Your task to perform on an android device: What's the weather? Image 0: 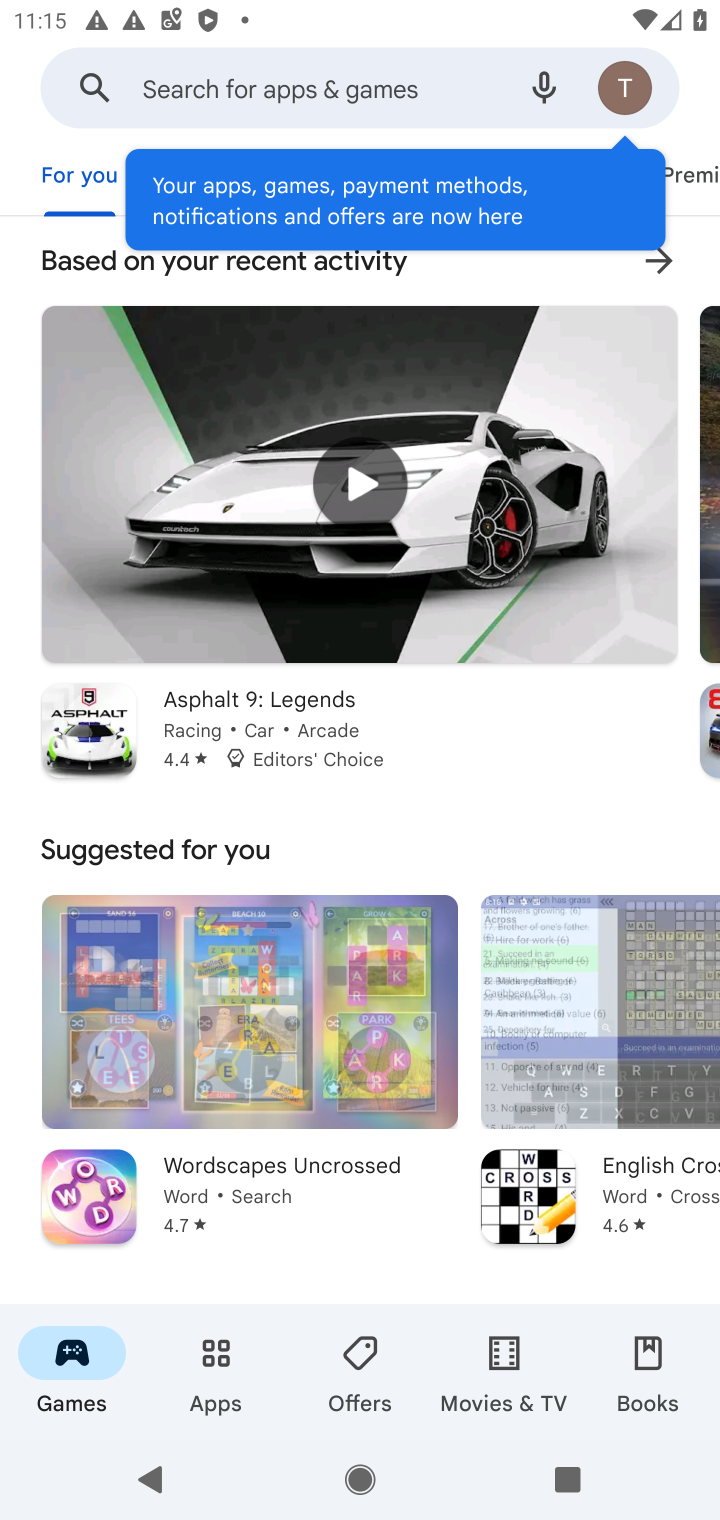
Step 0: press home button
Your task to perform on an android device: What's the weather? Image 1: 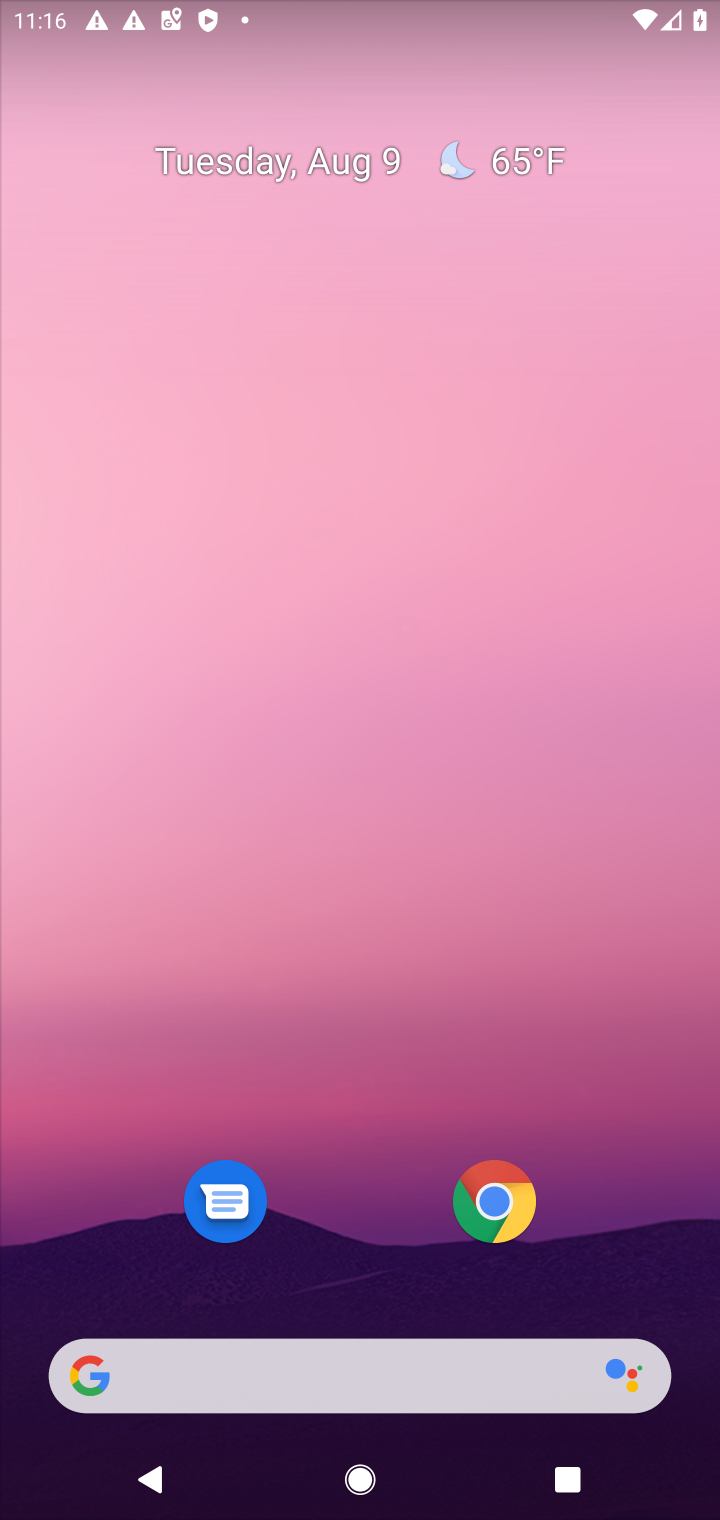
Step 1: click (81, 1374)
Your task to perform on an android device: What's the weather? Image 2: 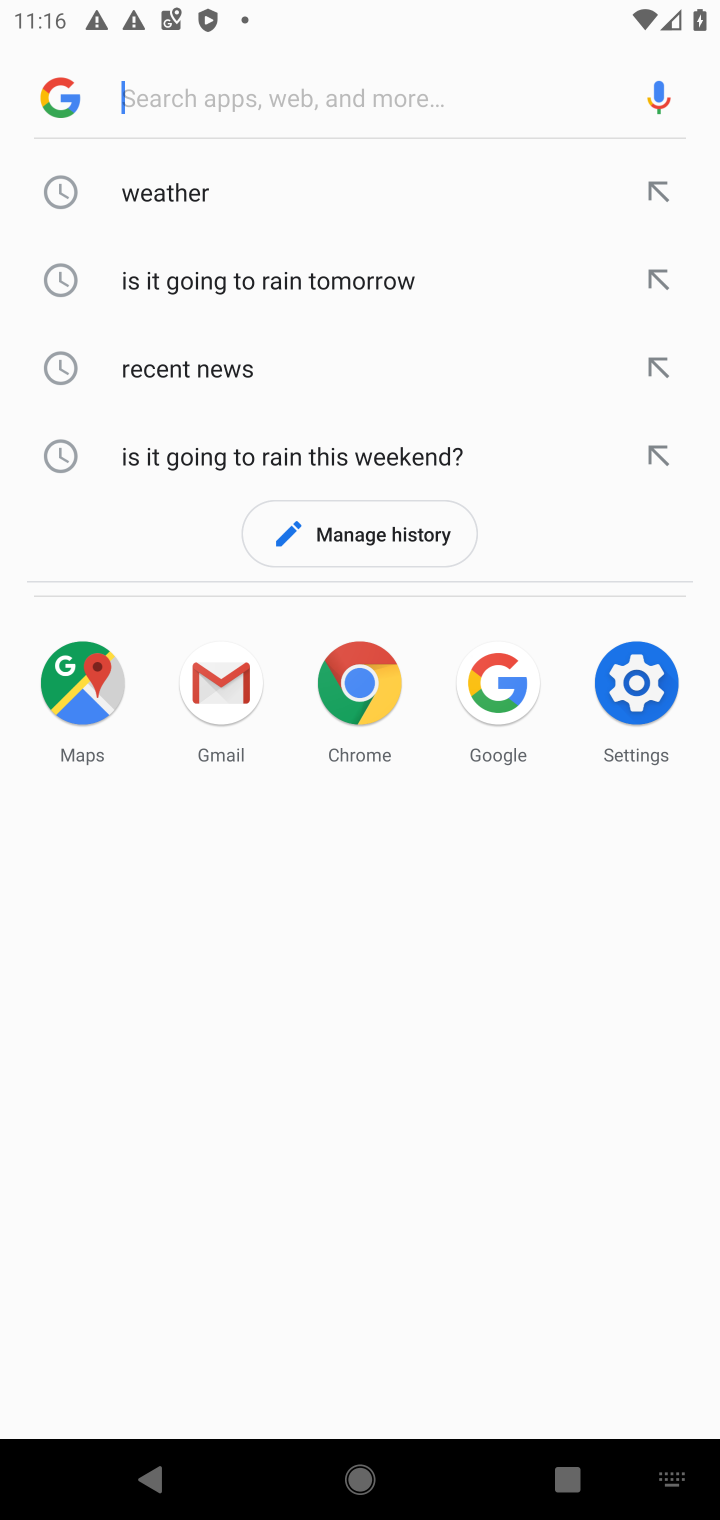
Step 2: click (167, 191)
Your task to perform on an android device: What's the weather? Image 3: 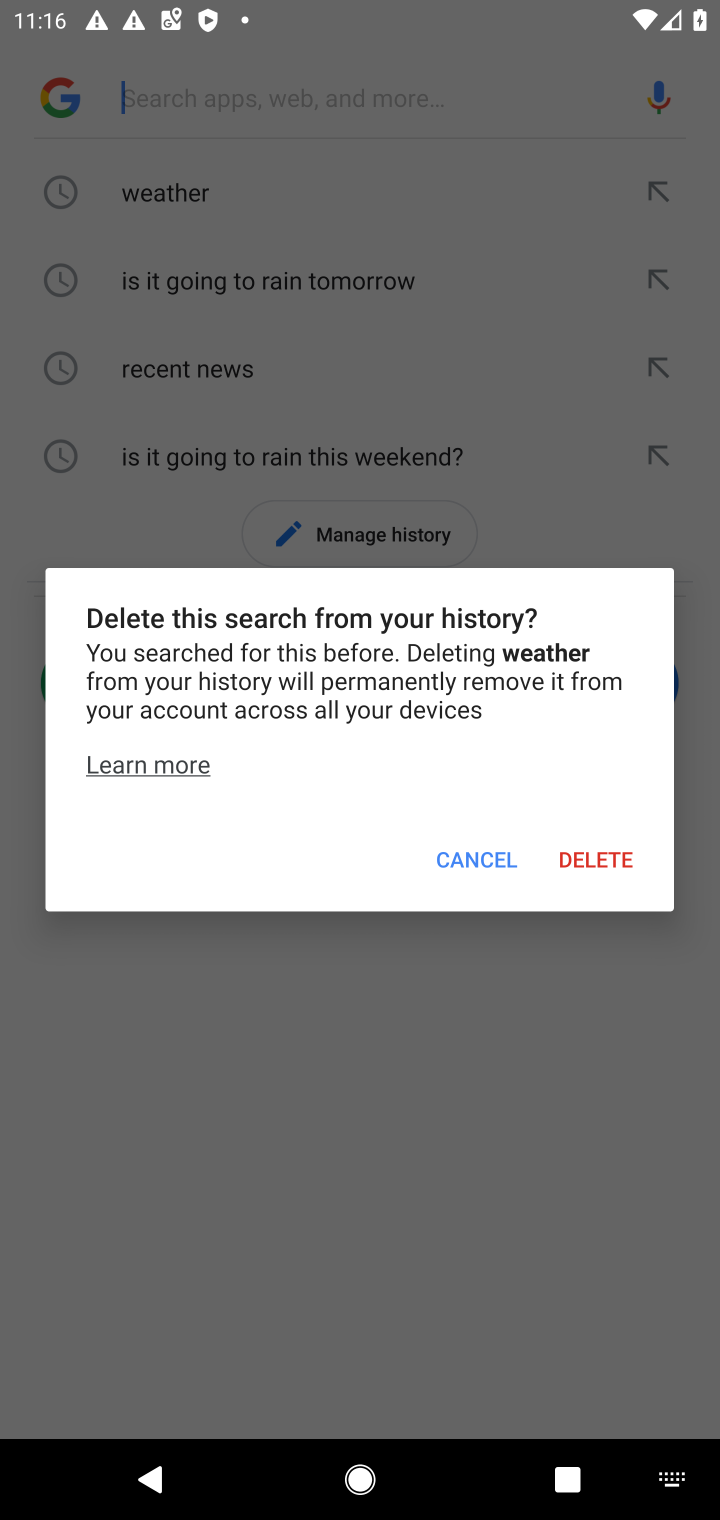
Step 3: click (485, 847)
Your task to perform on an android device: What's the weather? Image 4: 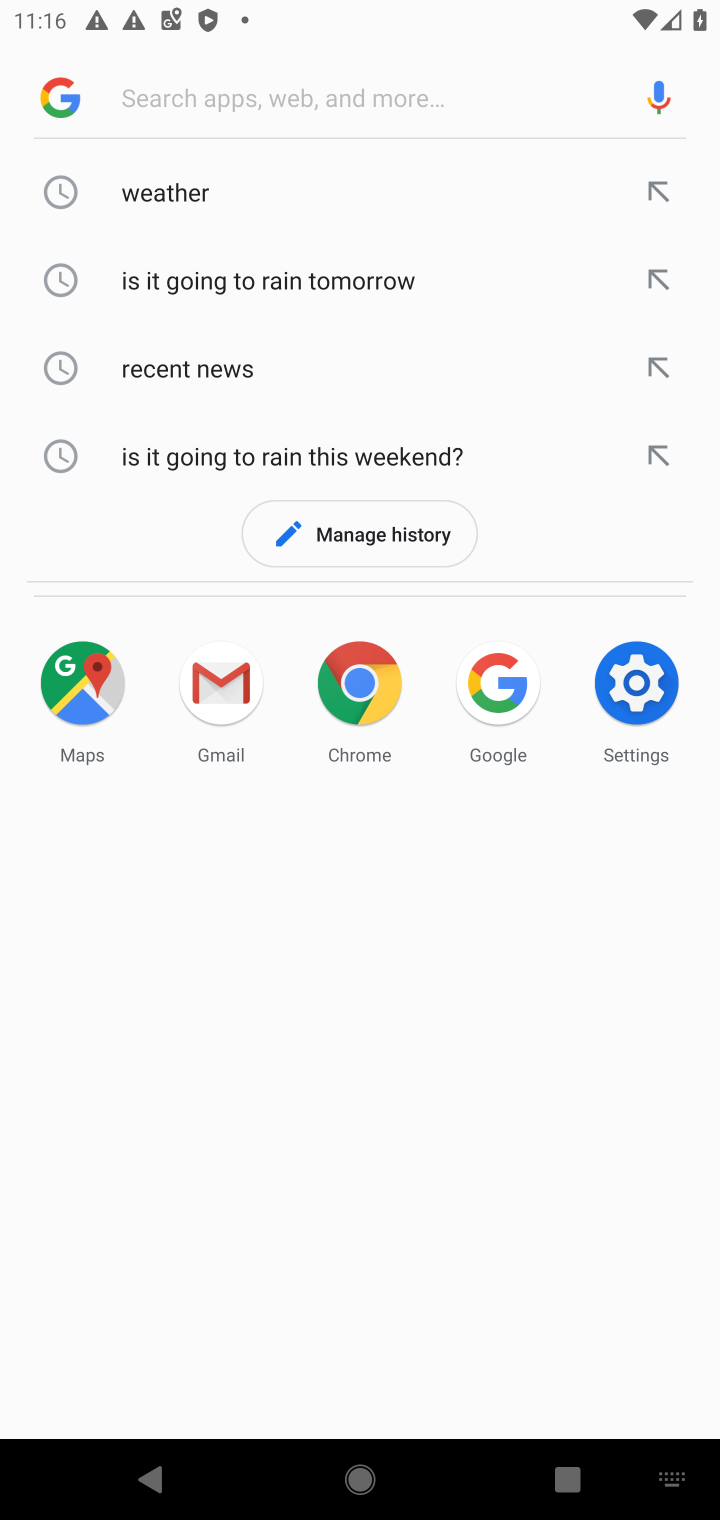
Step 4: type "weather"
Your task to perform on an android device: What's the weather? Image 5: 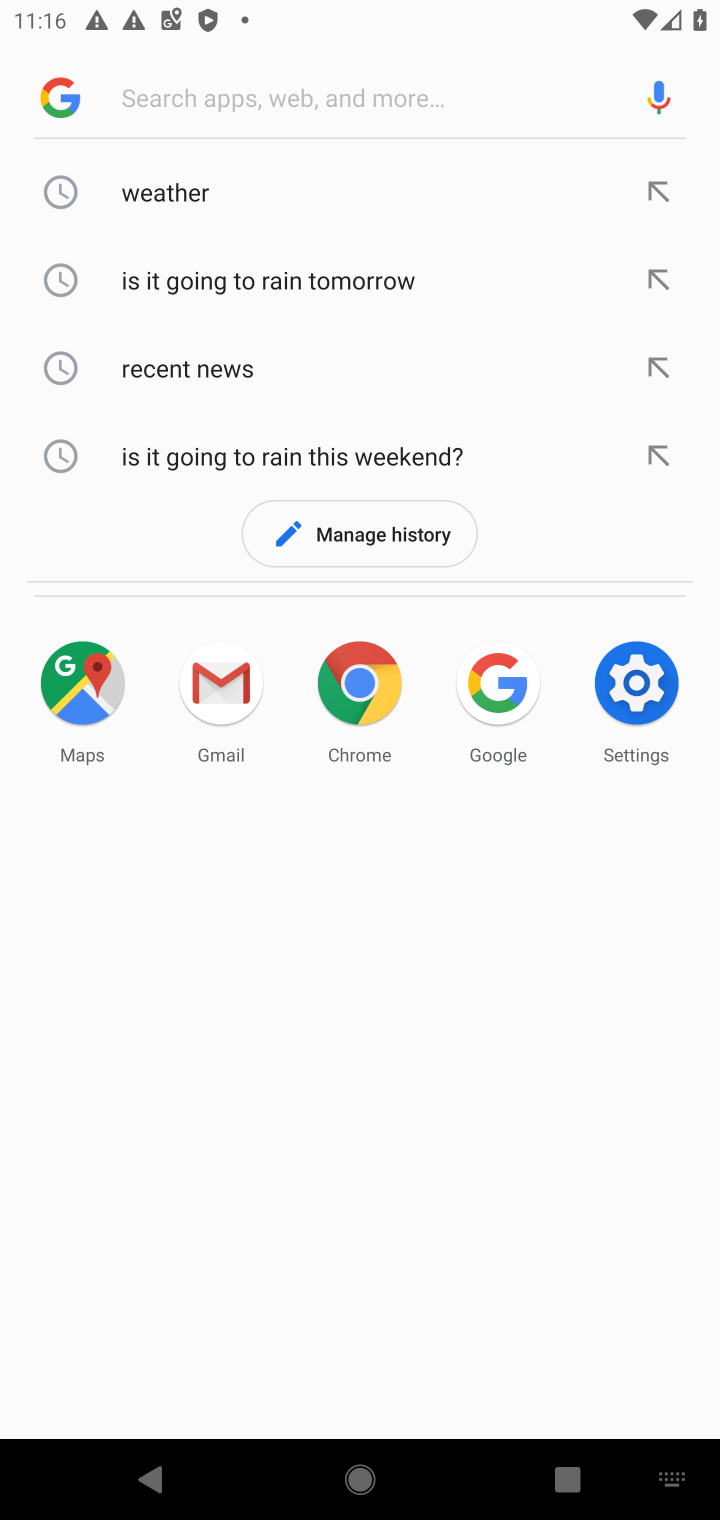
Step 5: click (199, 87)
Your task to perform on an android device: What's the weather? Image 6: 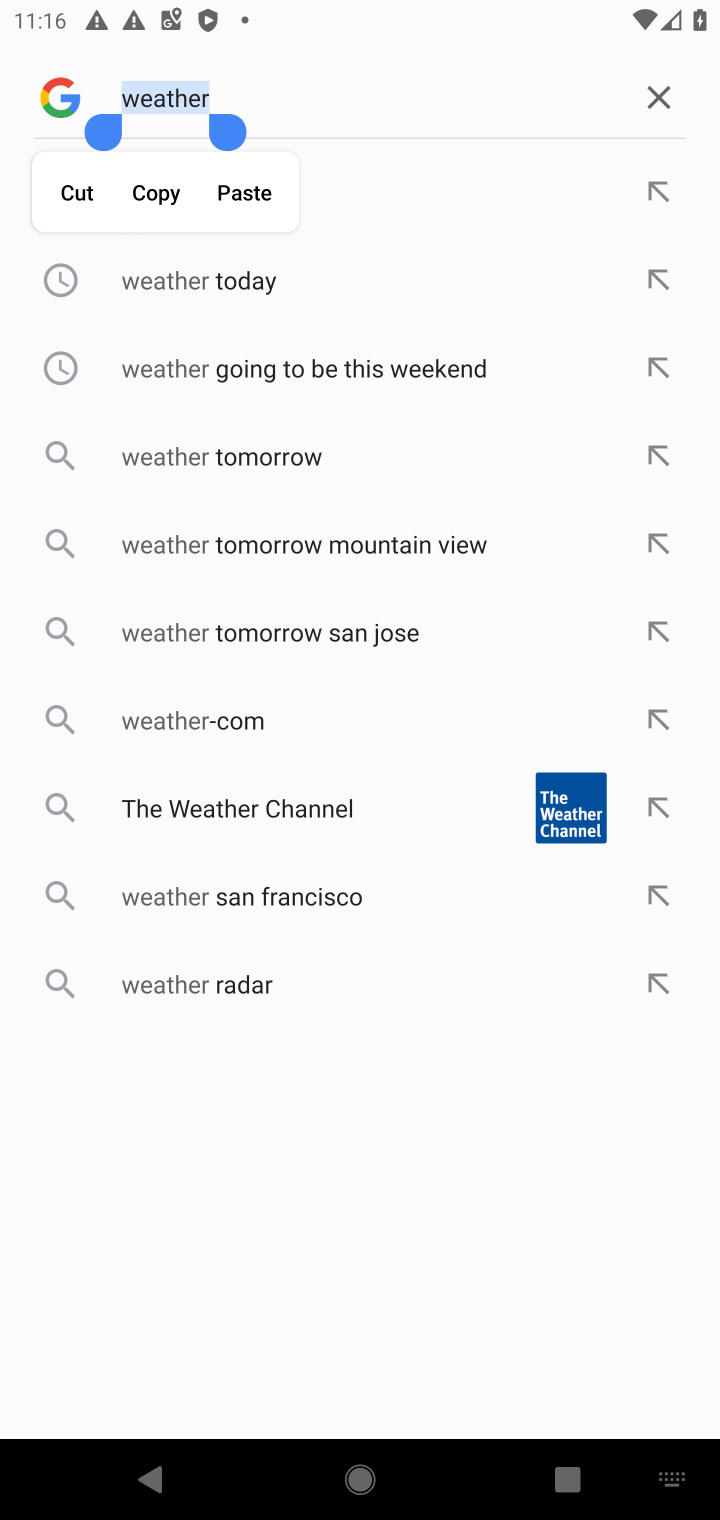
Step 6: press enter
Your task to perform on an android device: What's the weather? Image 7: 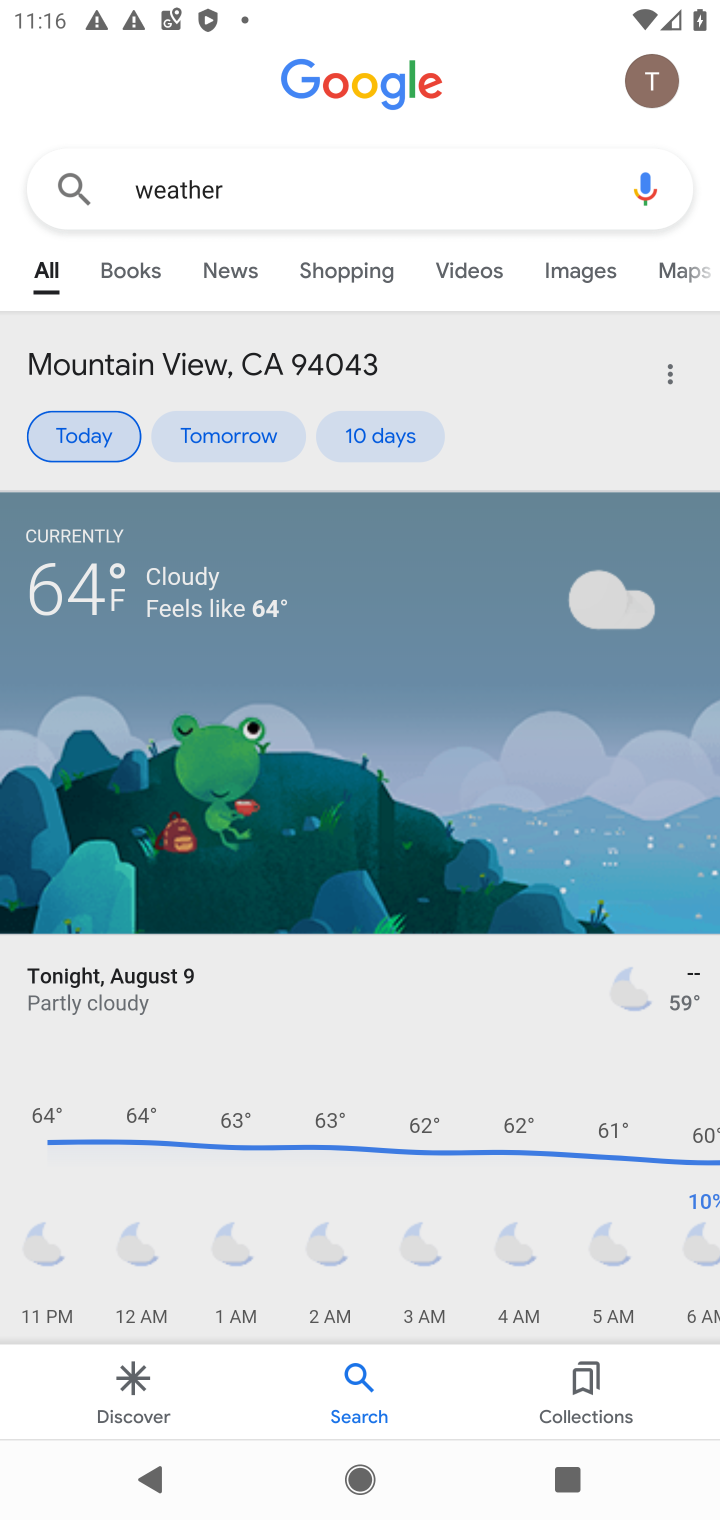
Step 7: task complete